Your task to perform on an android device: turn off notifications settings in the gmail app Image 0: 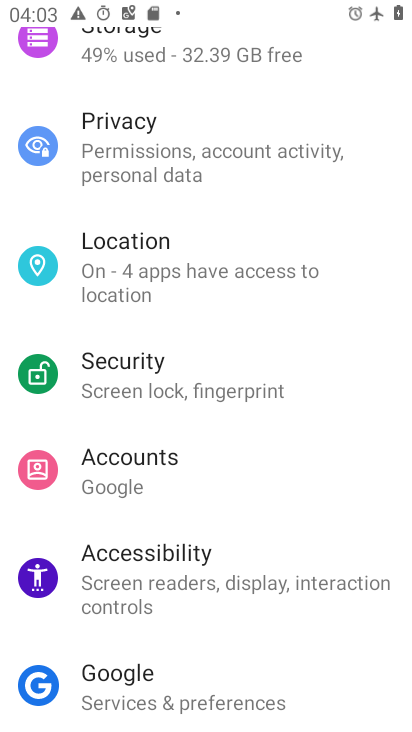
Step 0: press home button
Your task to perform on an android device: turn off notifications settings in the gmail app Image 1: 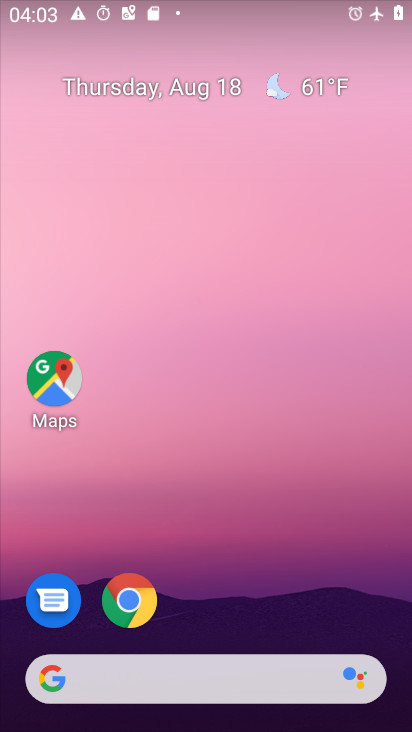
Step 1: drag from (269, 638) to (320, 122)
Your task to perform on an android device: turn off notifications settings in the gmail app Image 2: 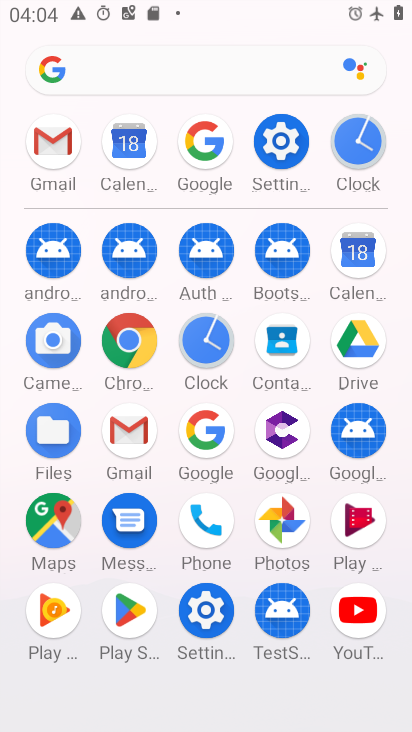
Step 2: click (50, 148)
Your task to perform on an android device: turn off notifications settings in the gmail app Image 3: 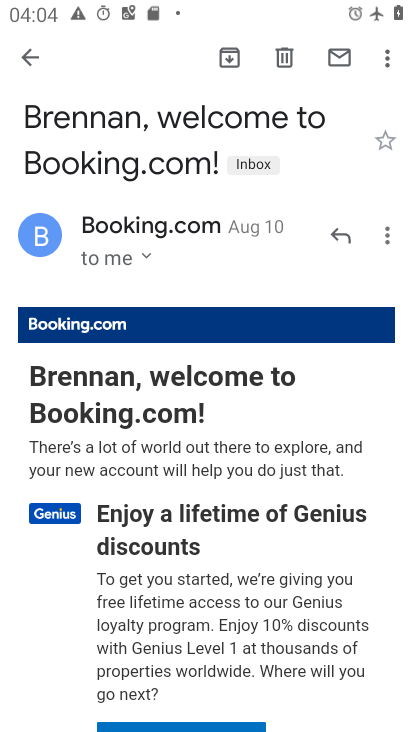
Step 3: press back button
Your task to perform on an android device: turn off notifications settings in the gmail app Image 4: 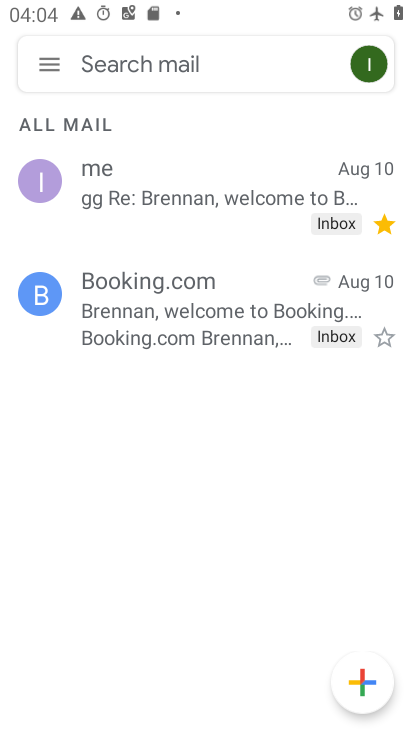
Step 4: click (43, 70)
Your task to perform on an android device: turn off notifications settings in the gmail app Image 5: 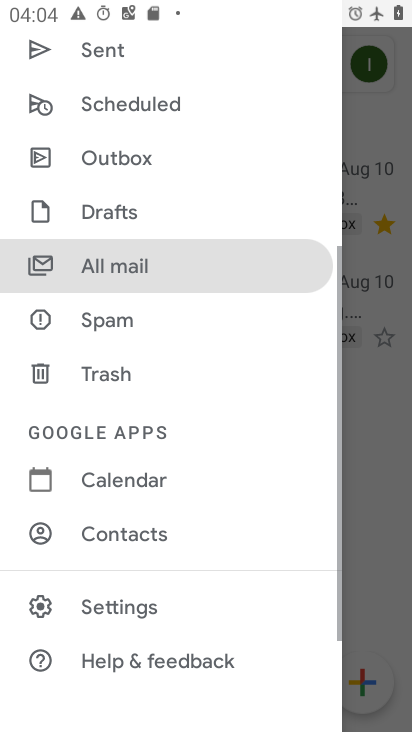
Step 5: click (115, 606)
Your task to perform on an android device: turn off notifications settings in the gmail app Image 6: 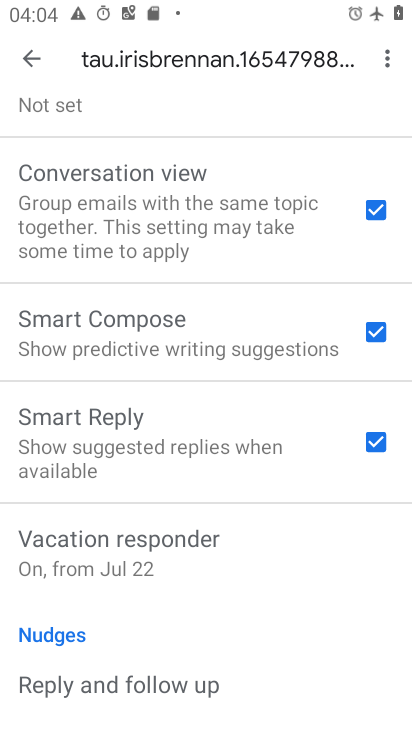
Step 6: drag from (247, 104) to (202, 725)
Your task to perform on an android device: turn off notifications settings in the gmail app Image 7: 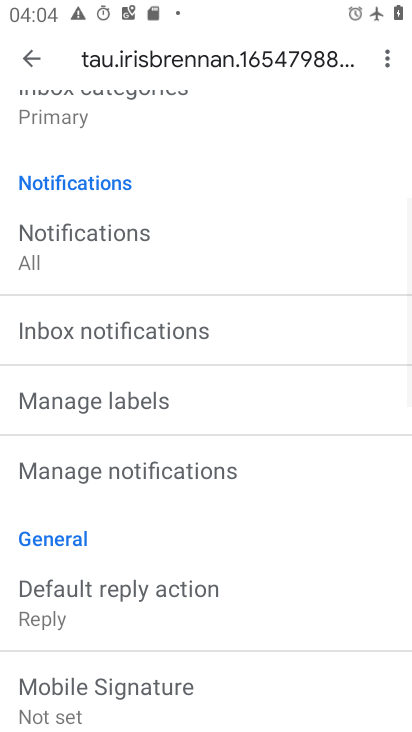
Step 7: click (110, 477)
Your task to perform on an android device: turn off notifications settings in the gmail app Image 8: 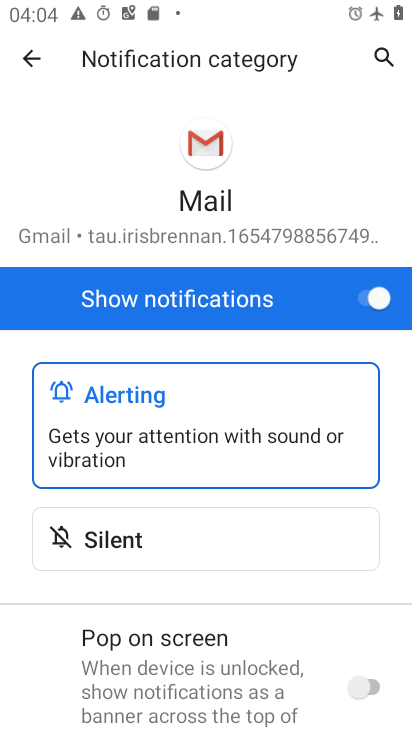
Step 8: click (380, 291)
Your task to perform on an android device: turn off notifications settings in the gmail app Image 9: 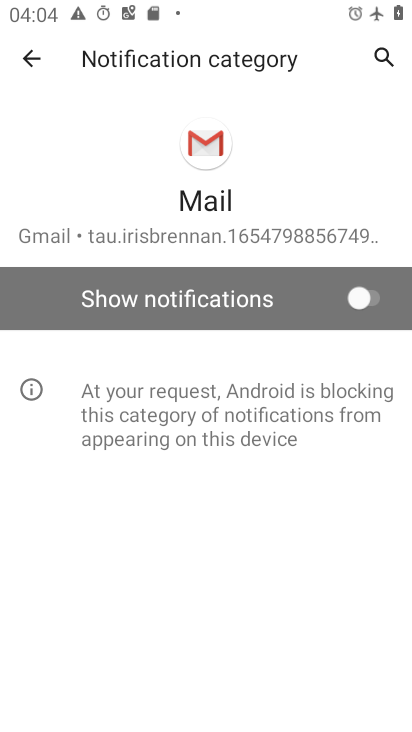
Step 9: task complete